Your task to perform on an android device: Open Android settings Image 0: 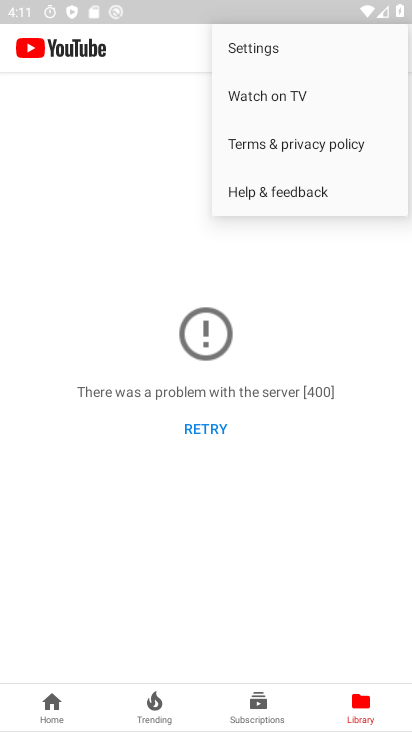
Step 0: press back button
Your task to perform on an android device: Open Android settings Image 1: 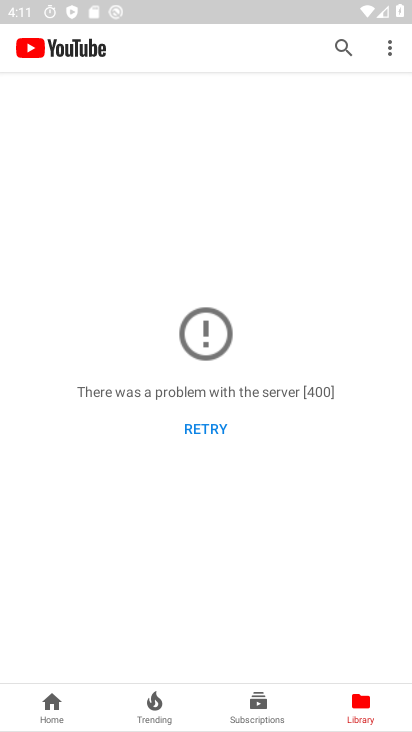
Step 1: press back button
Your task to perform on an android device: Open Android settings Image 2: 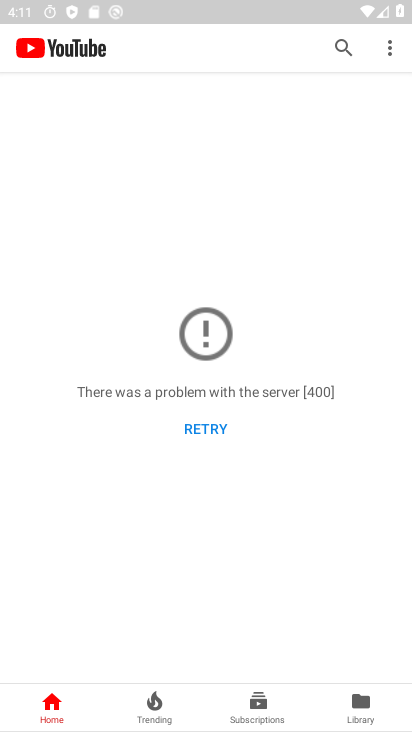
Step 2: press back button
Your task to perform on an android device: Open Android settings Image 3: 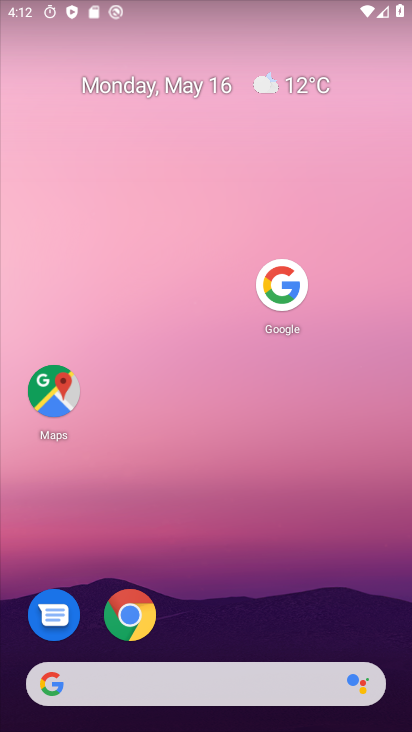
Step 3: drag from (215, 639) to (408, 473)
Your task to perform on an android device: Open Android settings Image 4: 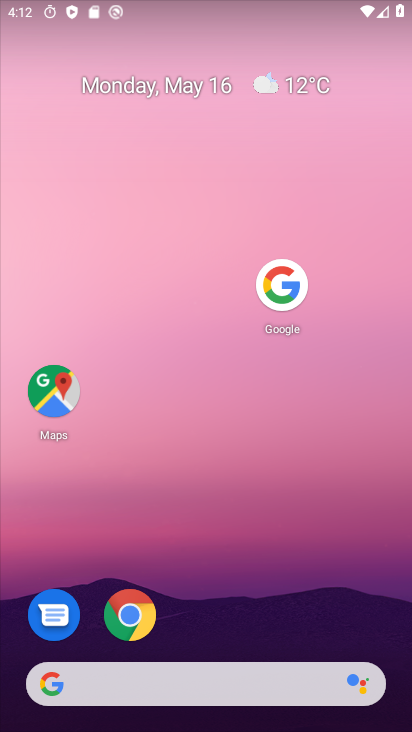
Step 4: drag from (192, 666) to (172, 19)
Your task to perform on an android device: Open Android settings Image 5: 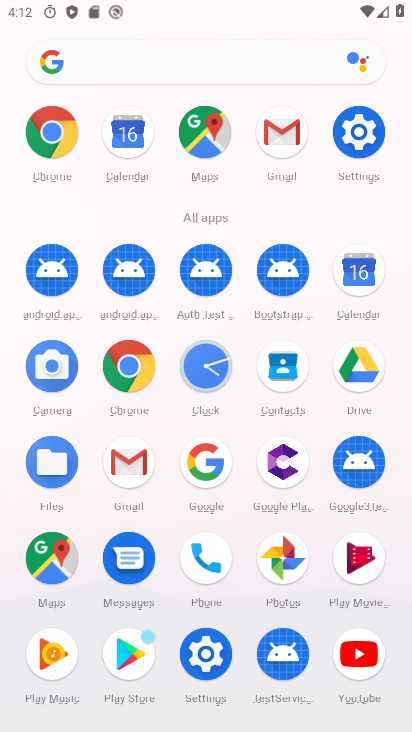
Step 5: click (347, 138)
Your task to perform on an android device: Open Android settings Image 6: 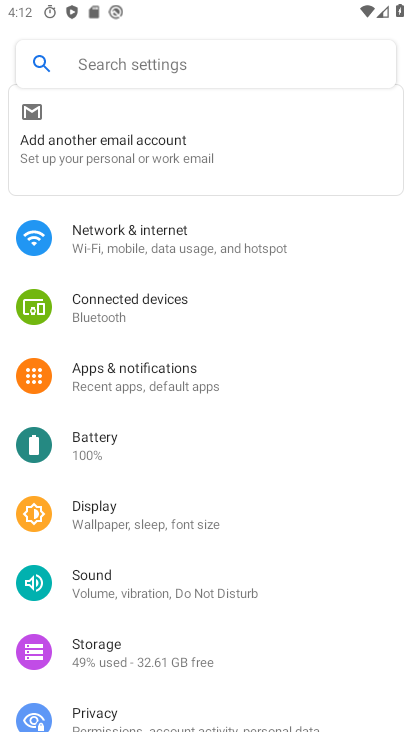
Step 6: drag from (120, 687) to (33, 90)
Your task to perform on an android device: Open Android settings Image 7: 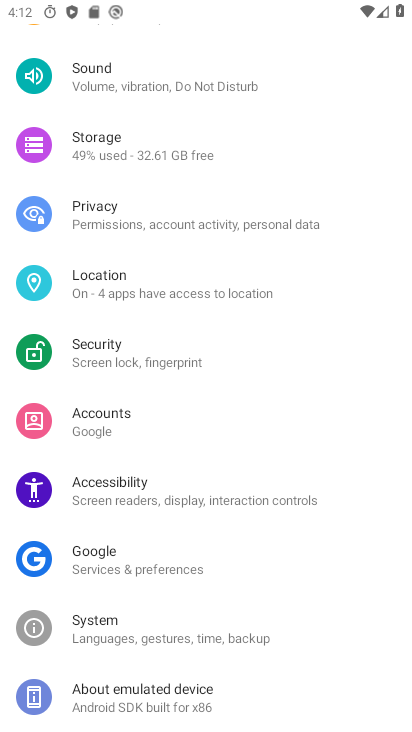
Step 7: click (124, 690)
Your task to perform on an android device: Open Android settings Image 8: 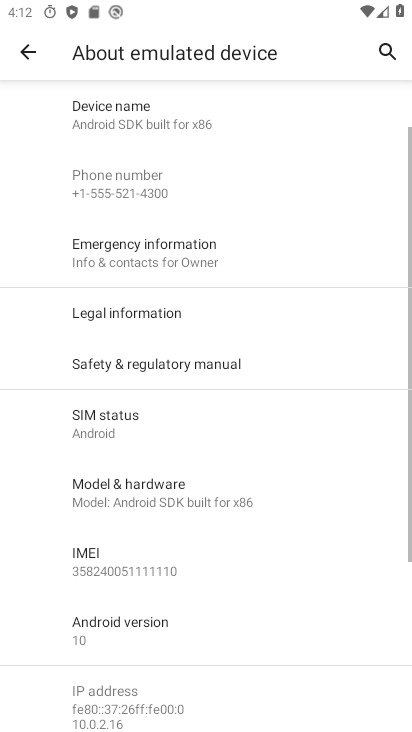
Step 8: click (123, 638)
Your task to perform on an android device: Open Android settings Image 9: 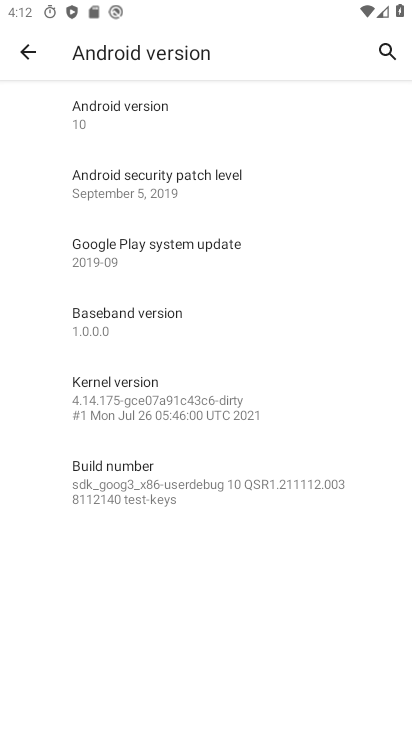
Step 9: task complete